Your task to perform on an android device: see tabs open on other devices in the chrome app Image 0: 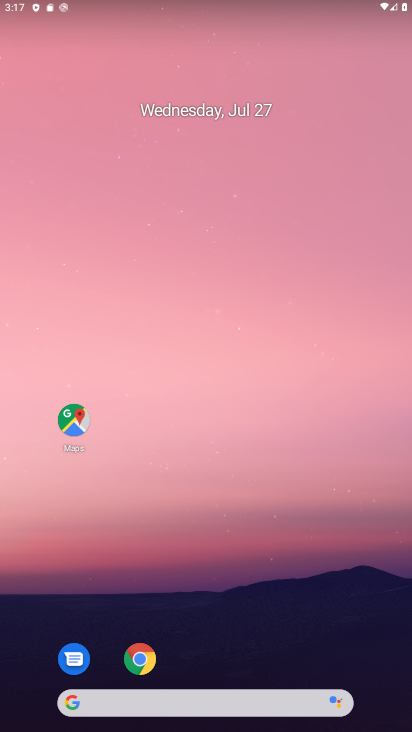
Step 0: click (137, 659)
Your task to perform on an android device: see tabs open on other devices in the chrome app Image 1: 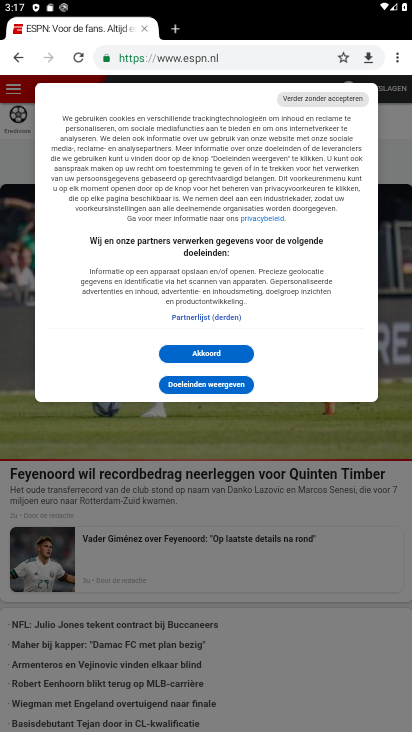
Step 1: task complete